Your task to perform on an android device: toggle airplane mode Image 0: 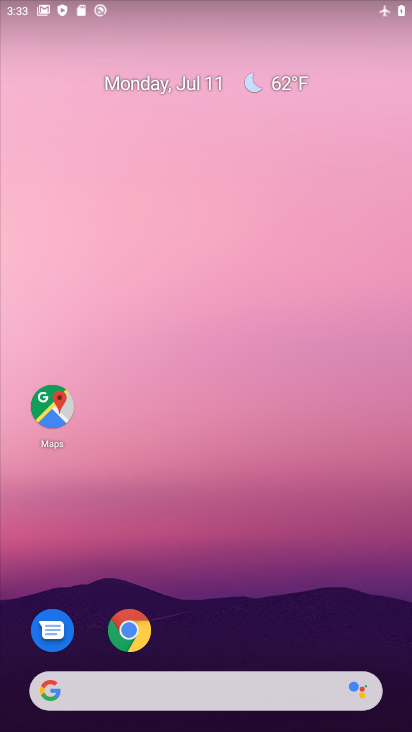
Step 0: drag from (180, 661) to (198, 57)
Your task to perform on an android device: toggle airplane mode Image 1: 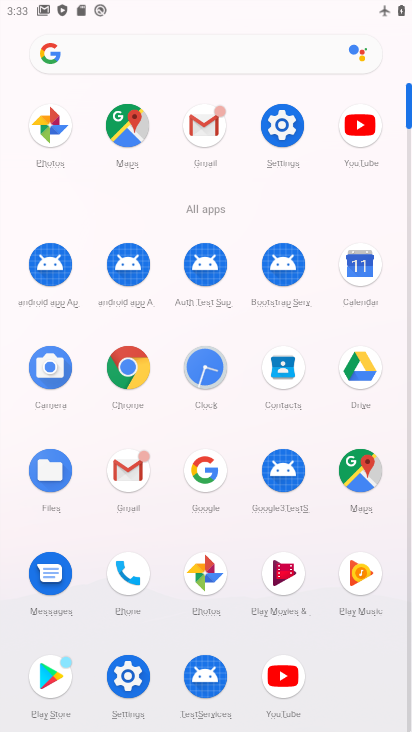
Step 1: click (289, 120)
Your task to perform on an android device: toggle airplane mode Image 2: 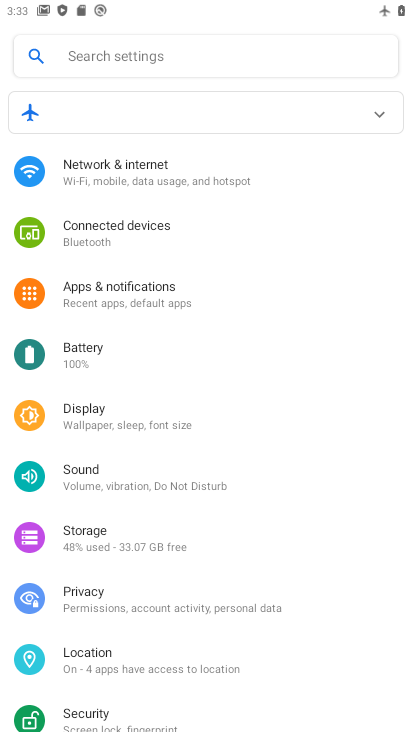
Step 2: click (163, 163)
Your task to perform on an android device: toggle airplane mode Image 3: 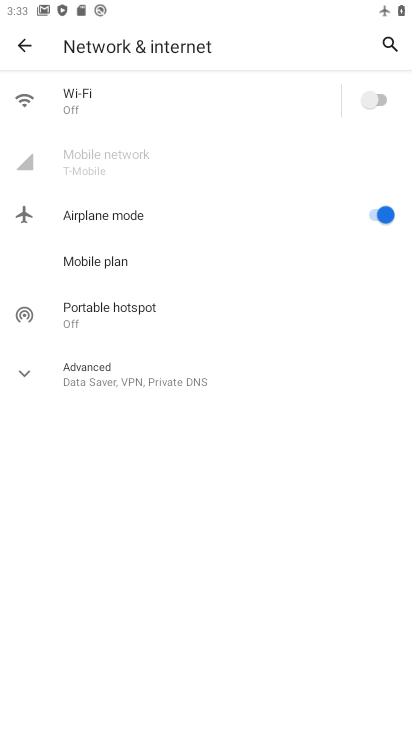
Step 3: click (357, 208)
Your task to perform on an android device: toggle airplane mode Image 4: 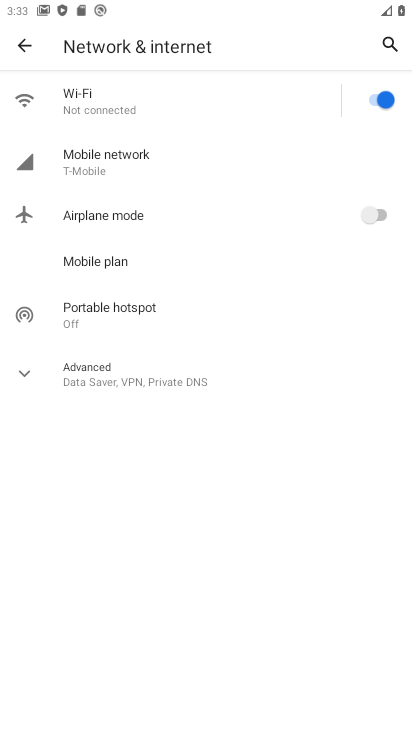
Step 4: task complete